Your task to perform on an android device: turn on sleep mode Image 0: 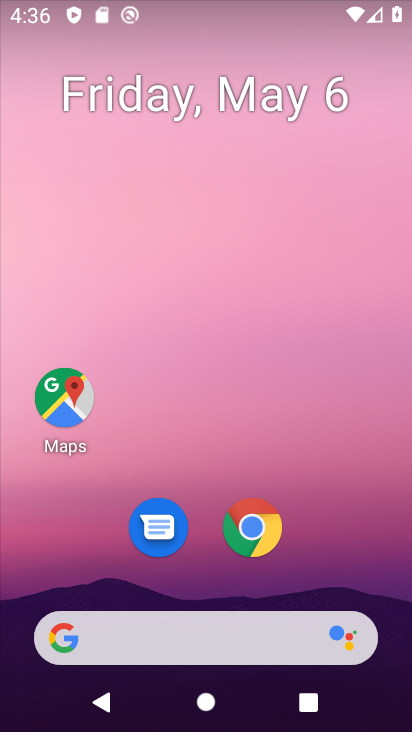
Step 0: drag from (230, 590) to (168, 5)
Your task to perform on an android device: turn on sleep mode Image 1: 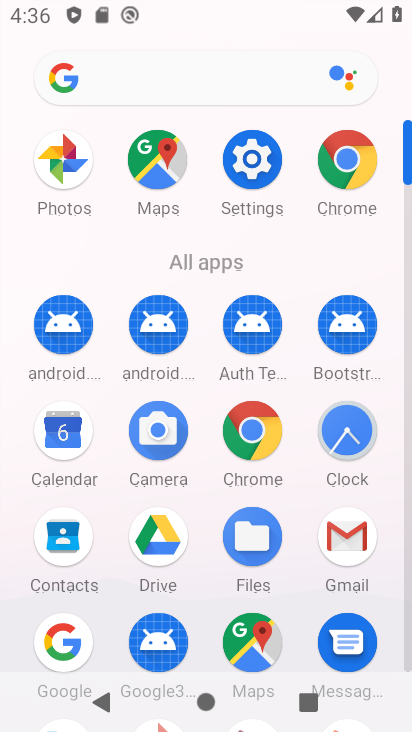
Step 1: click (243, 163)
Your task to perform on an android device: turn on sleep mode Image 2: 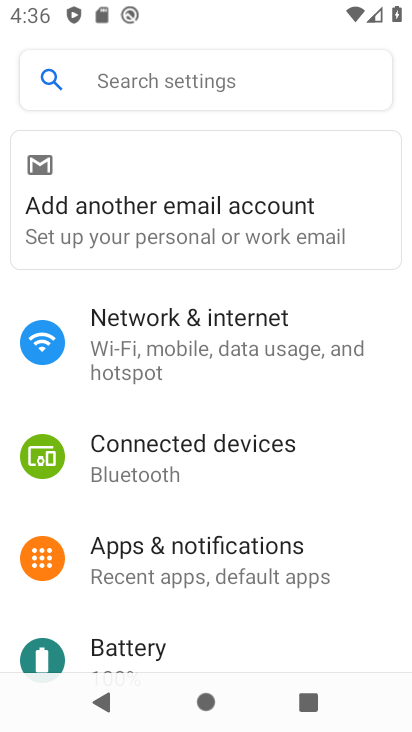
Step 2: drag from (133, 569) to (81, 224)
Your task to perform on an android device: turn on sleep mode Image 3: 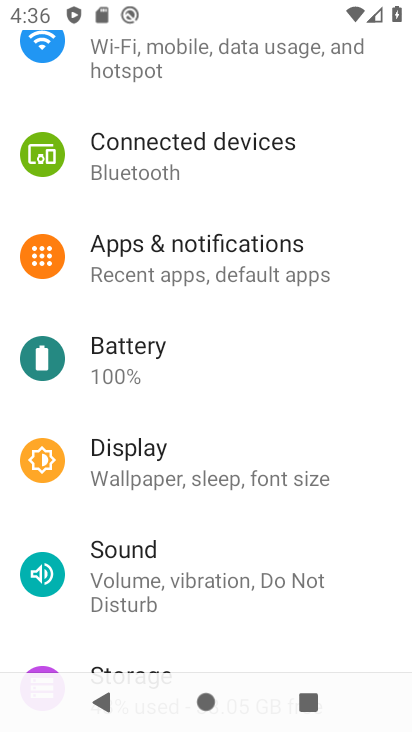
Step 3: click (132, 462)
Your task to perform on an android device: turn on sleep mode Image 4: 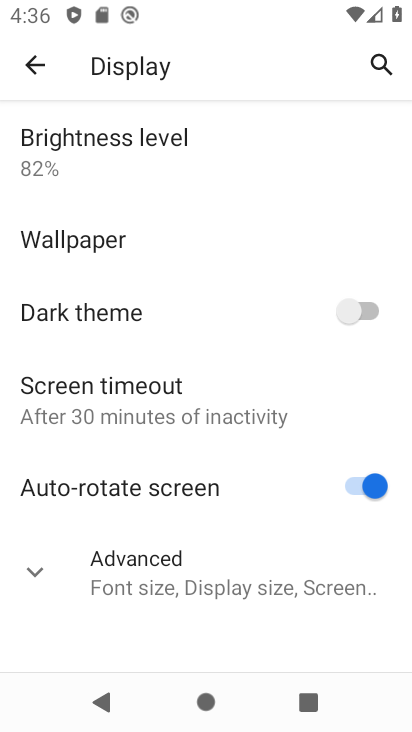
Step 4: task complete